Your task to perform on an android device: Open the map Image 0: 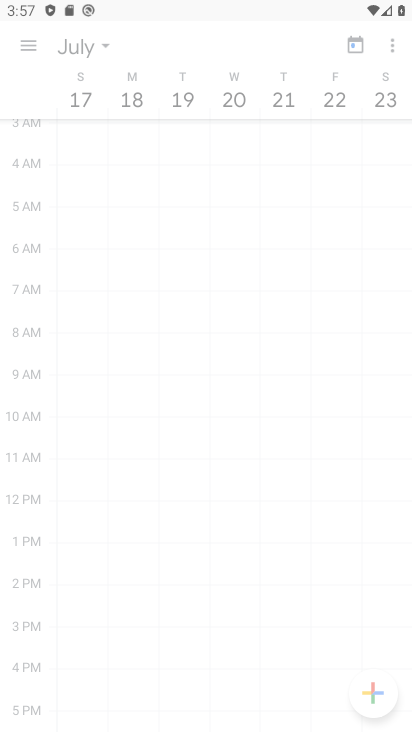
Step 0: press home button
Your task to perform on an android device: Open the map Image 1: 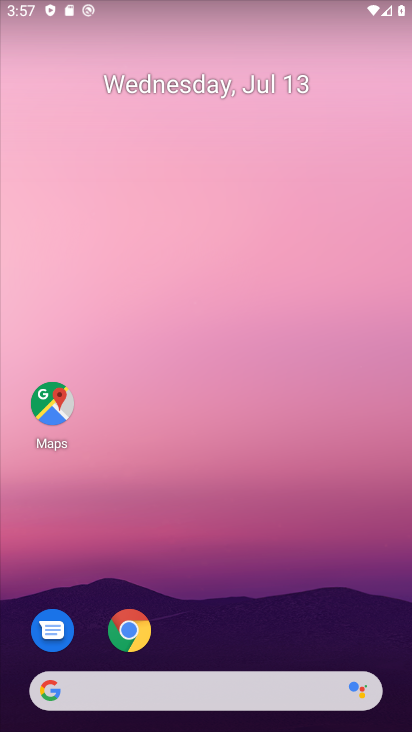
Step 1: drag from (228, 645) to (269, 51)
Your task to perform on an android device: Open the map Image 2: 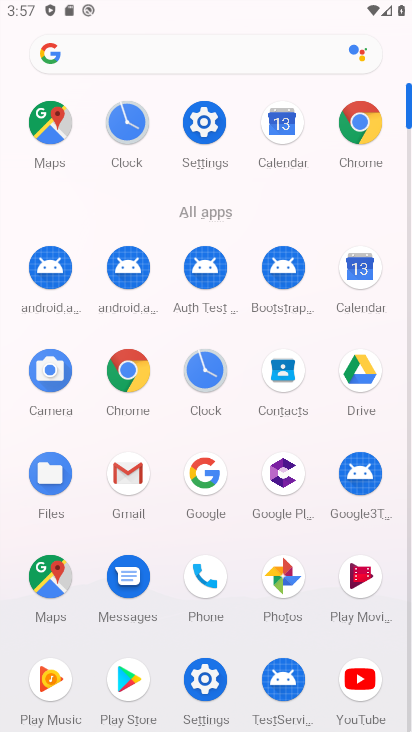
Step 2: click (46, 127)
Your task to perform on an android device: Open the map Image 3: 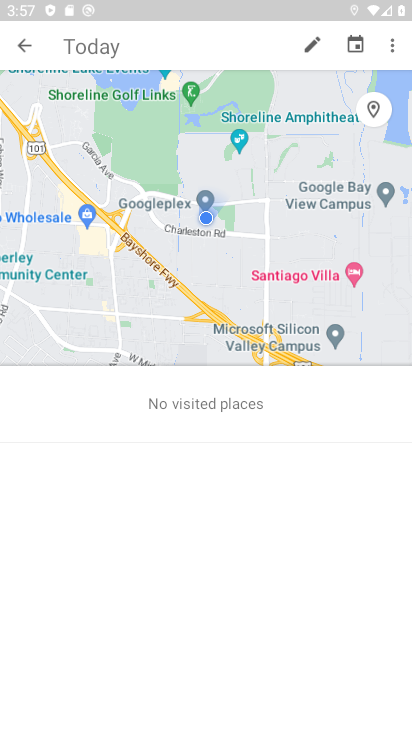
Step 3: task complete